Your task to perform on an android device: empty trash in google photos Image 0: 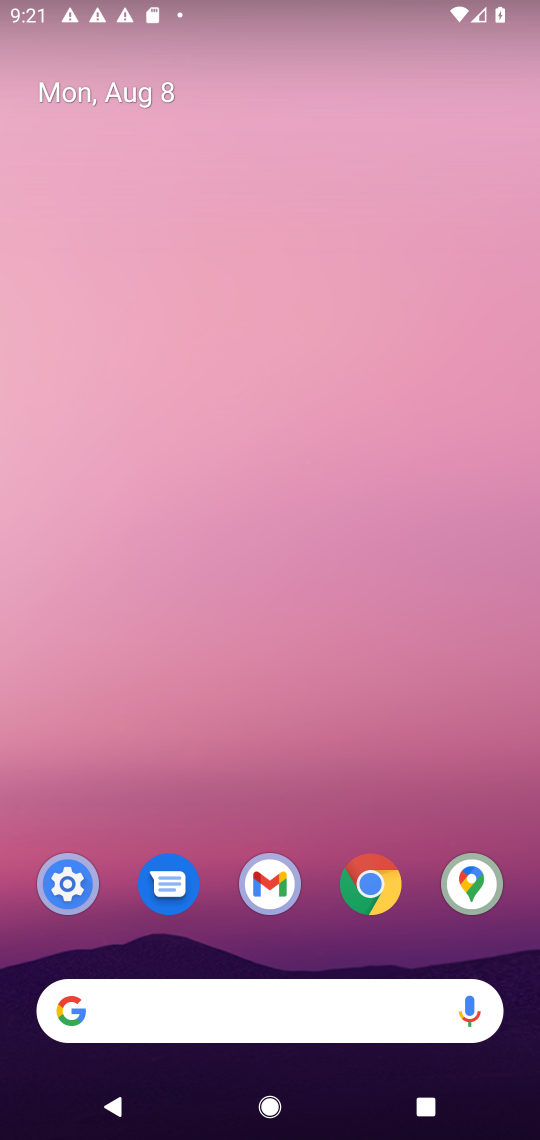
Step 0: drag from (265, 780) to (246, 13)
Your task to perform on an android device: empty trash in google photos Image 1: 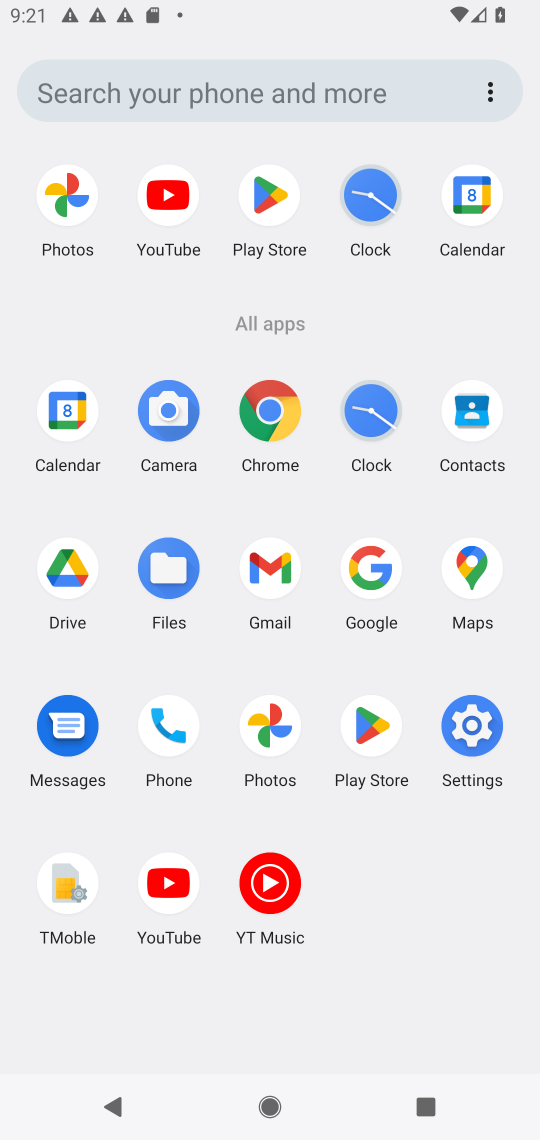
Step 1: click (65, 197)
Your task to perform on an android device: empty trash in google photos Image 2: 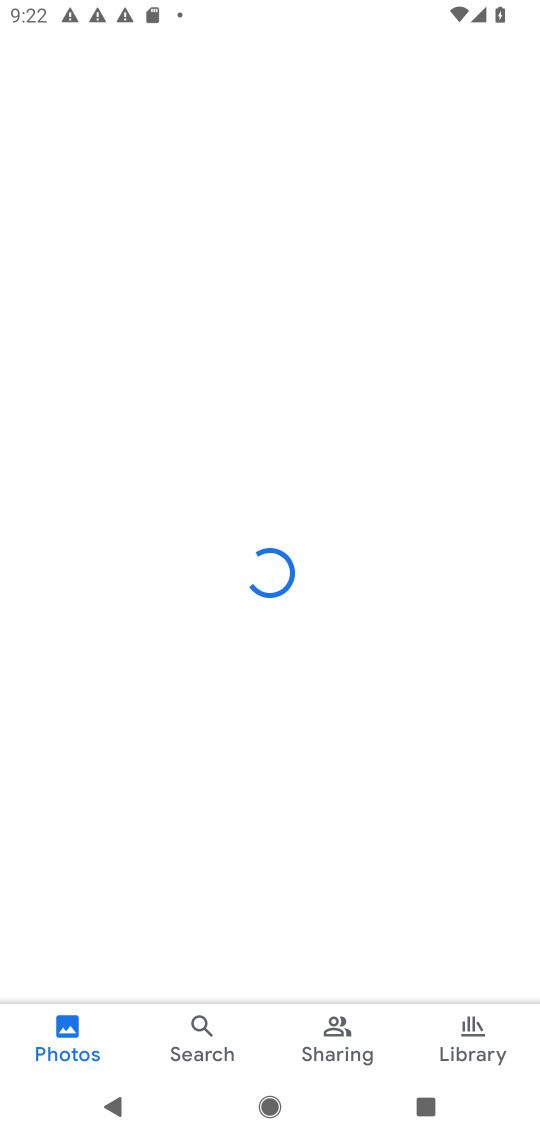
Step 2: click (483, 1050)
Your task to perform on an android device: empty trash in google photos Image 3: 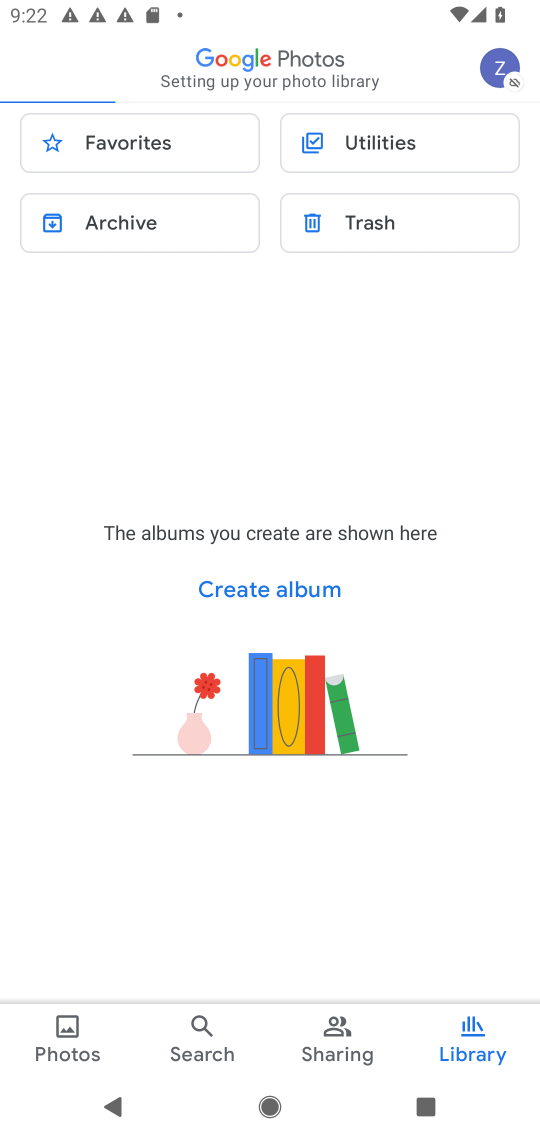
Step 3: click (370, 223)
Your task to perform on an android device: empty trash in google photos Image 4: 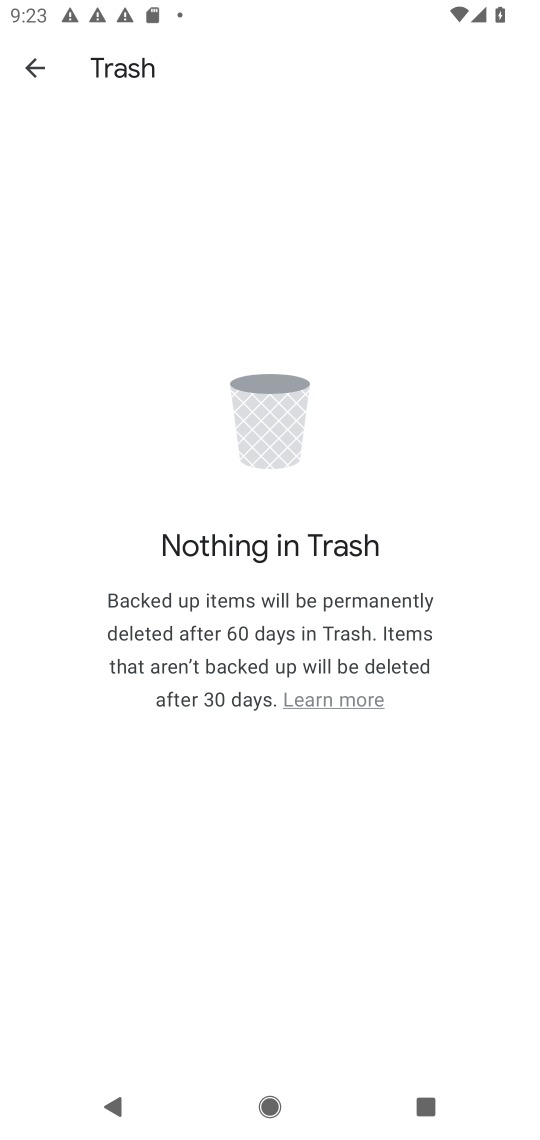
Step 4: task complete